Your task to perform on an android device: search for starred emails in the gmail app Image 0: 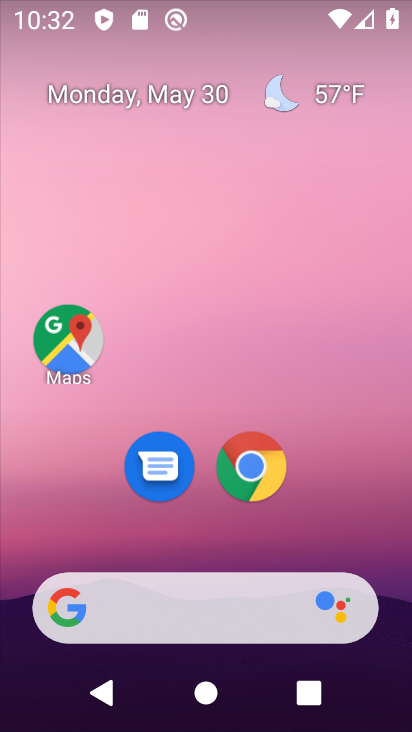
Step 0: drag from (54, 575) to (154, 76)
Your task to perform on an android device: search for starred emails in the gmail app Image 1: 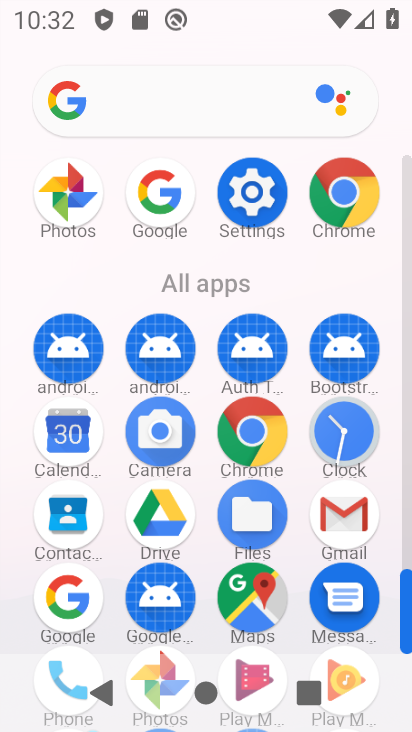
Step 1: click (358, 509)
Your task to perform on an android device: search for starred emails in the gmail app Image 2: 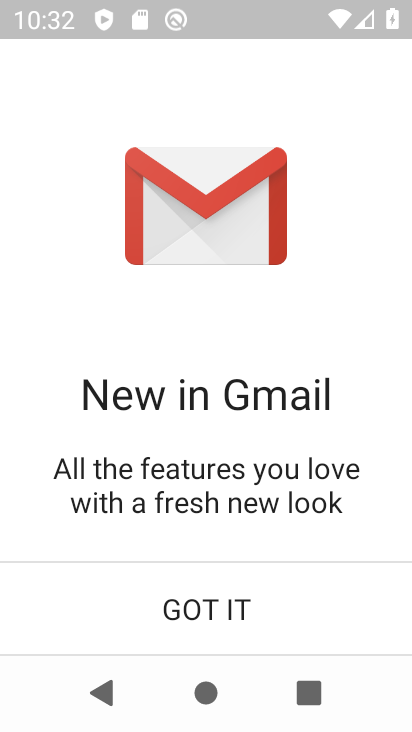
Step 2: click (204, 597)
Your task to perform on an android device: search for starred emails in the gmail app Image 3: 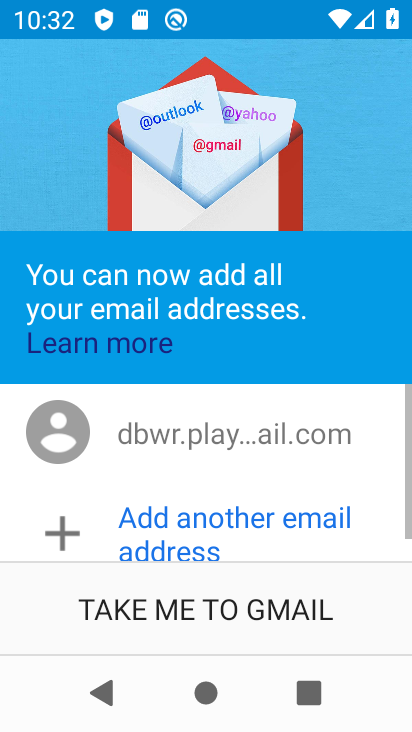
Step 3: click (305, 616)
Your task to perform on an android device: search for starred emails in the gmail app Image 4: 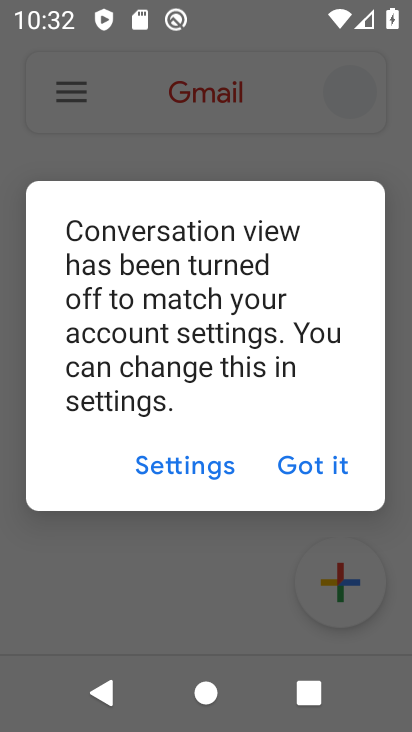
Step 4: click (320, 483)
Your task to perform on an android device: search for starred emails in the gmail app Image 5: 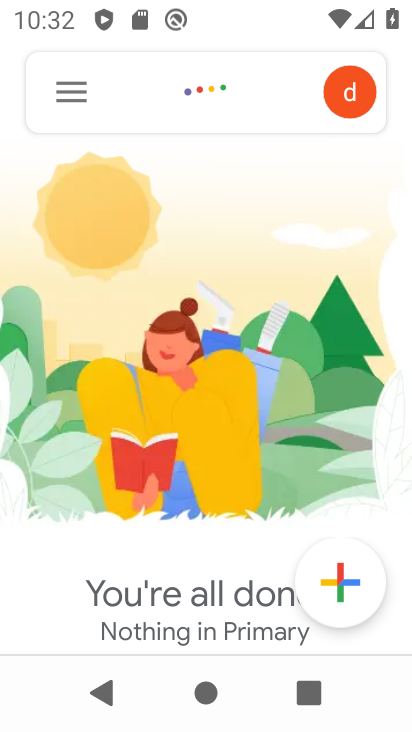
Step 5: click (68, 102)
Your task to perform on an android device: search for starred emails in the gmail app Image 6: 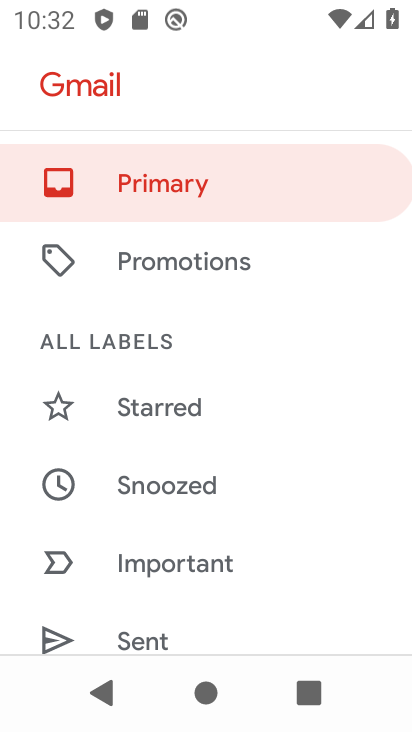
Step 6: click (222, 422)
Your task to perform on an android device: search for starred emails in the gmail app Image 7: 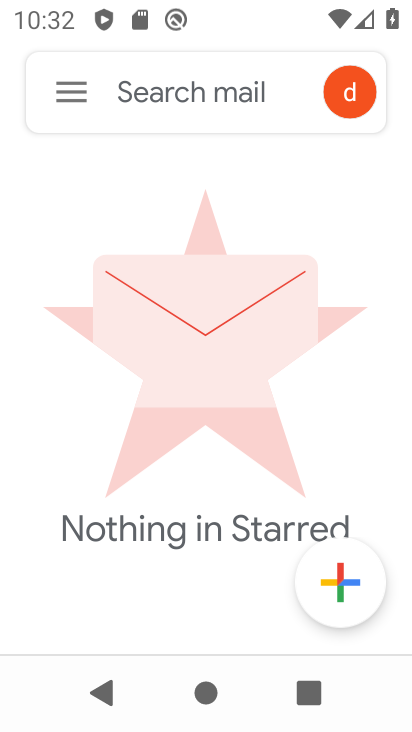
Step 7: task complete